Your task to perform on an android device: Check the settings for the YouTube app Image 0: 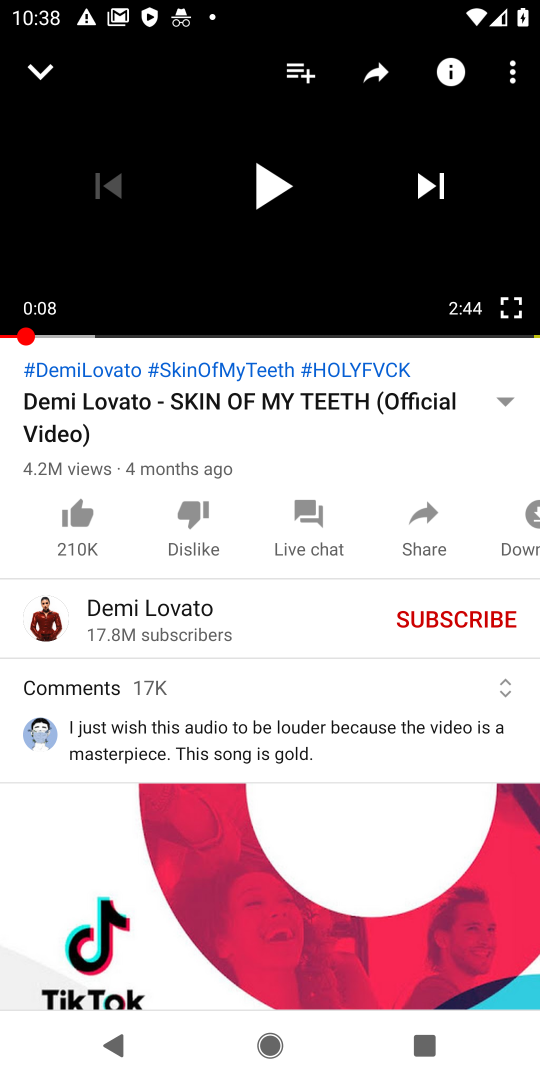
Step 0: press home button
Your task to perform on an android device: Check the settings for the YouTube app Image 1: 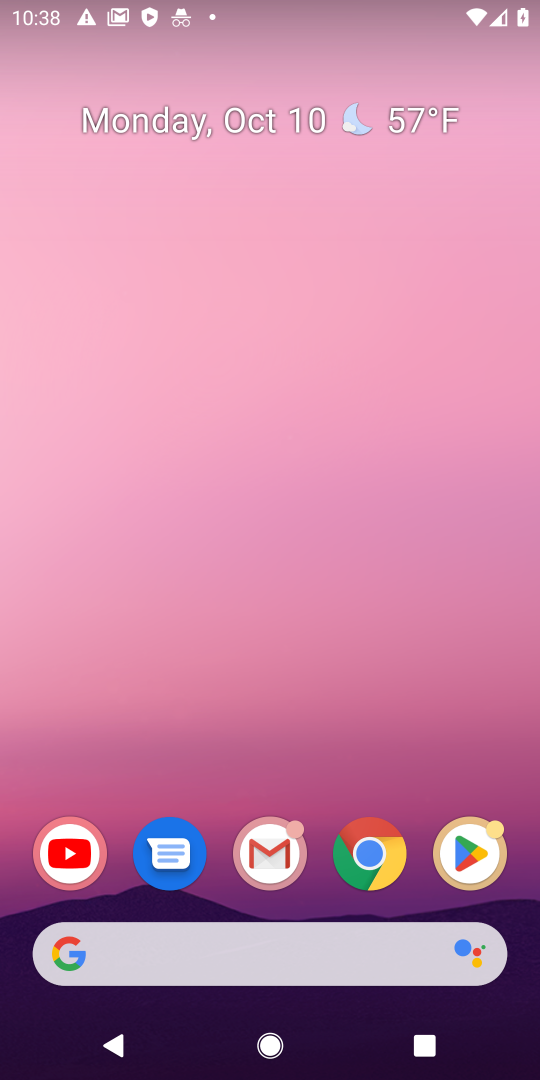
Step 1: drag from (392, 719) to (430, 98)
Your task to perform on an android device: Check the settings for the YouTube app Image 2: 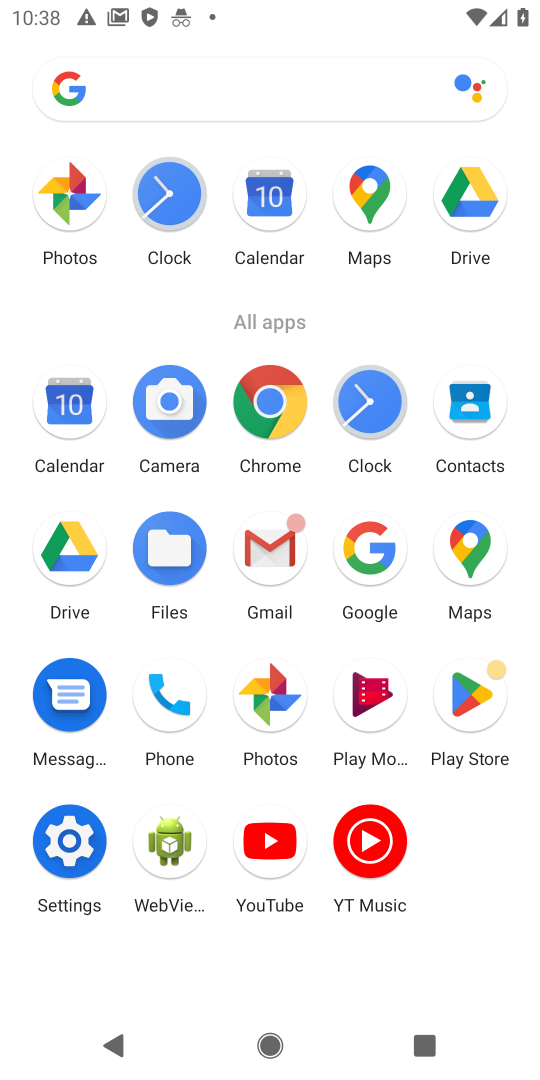
Step 2: click (277, 852)
Your task to perform on an android device: Check the settings for the YouTube app Image 3: 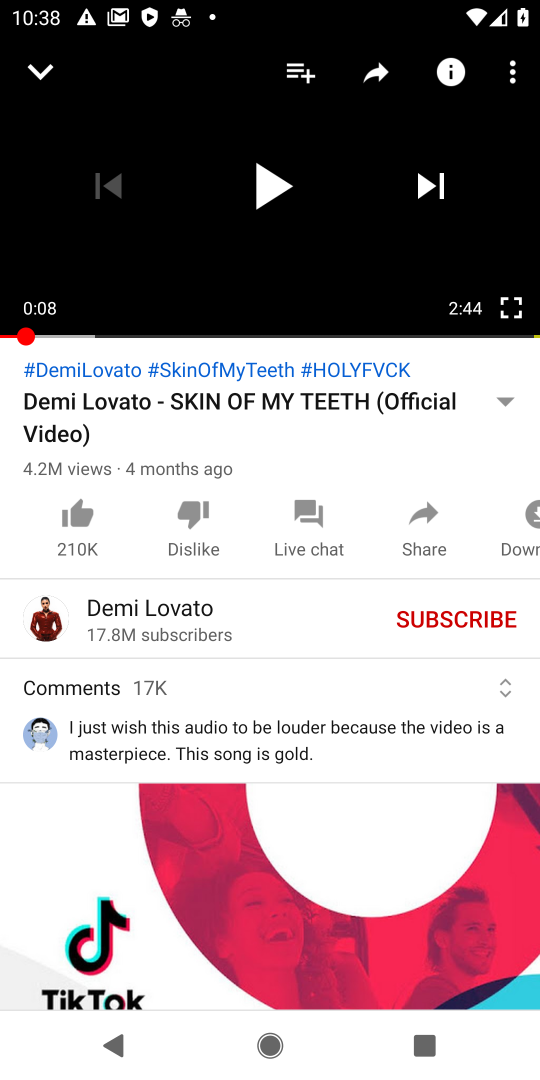
Step 3: press back button
Your task to perform on an android device: Check the settings for the YouTube app Image 4: 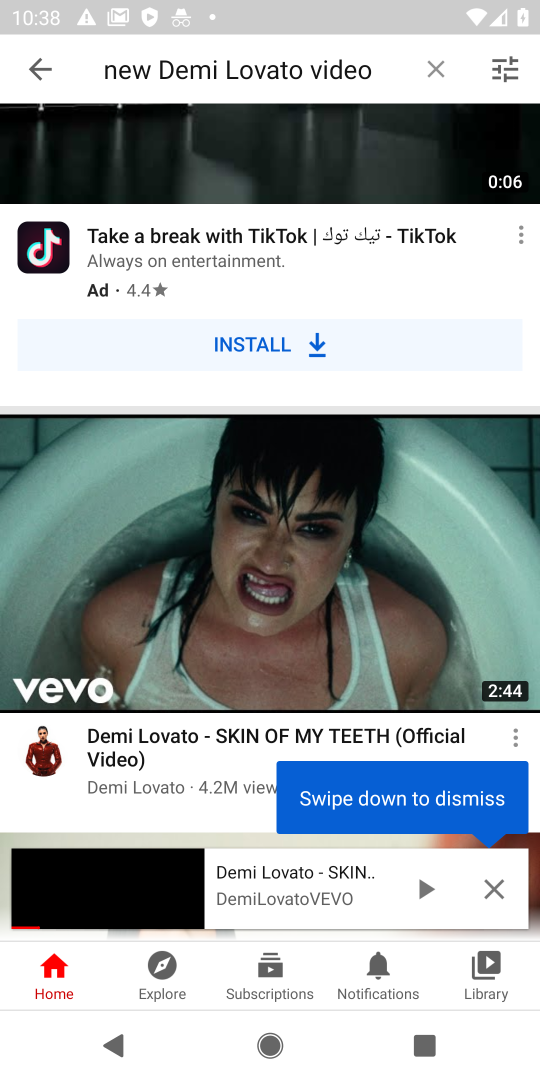
Step 4: press back button
Your task to perform on an android device: Check the settings for the YouTube app Image 5: 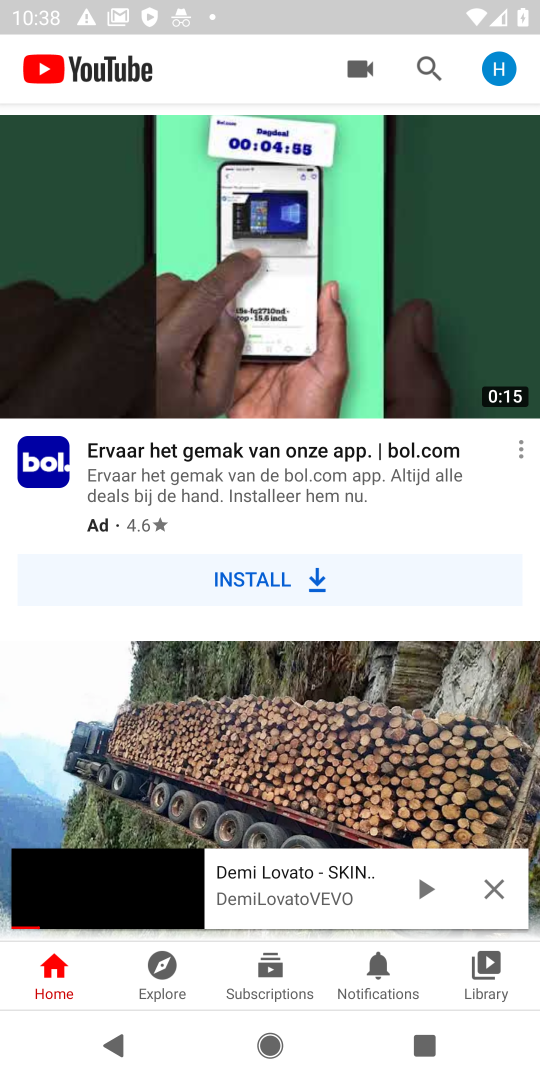
Step 5: click (504, 78)
Your task to perform on an android device: Check the settings for the YouTube app Image 6: 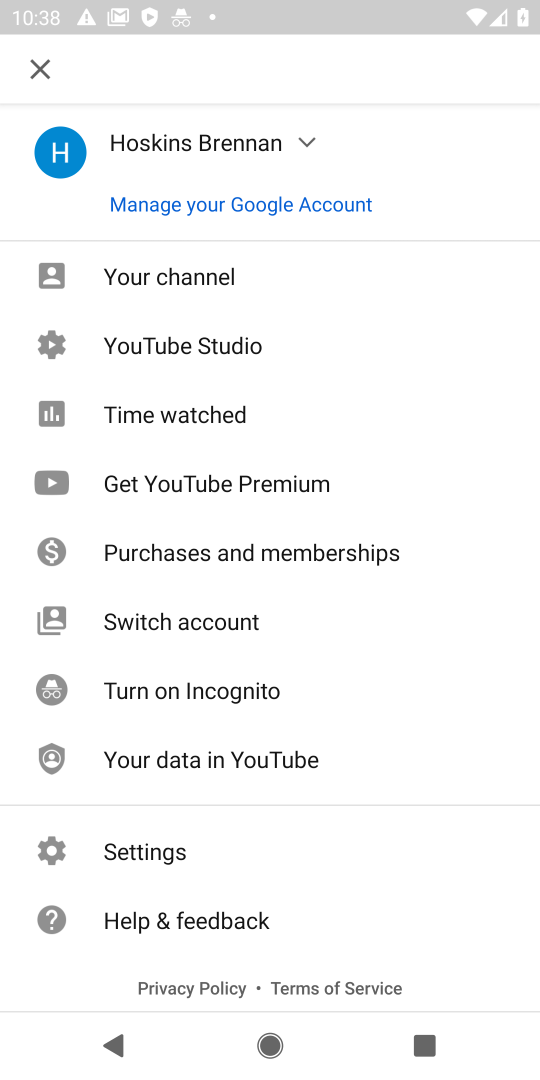
Step 6: click (146, 854)
Your task to perform on an android device: Check the settings for the YouTube app Image 7: 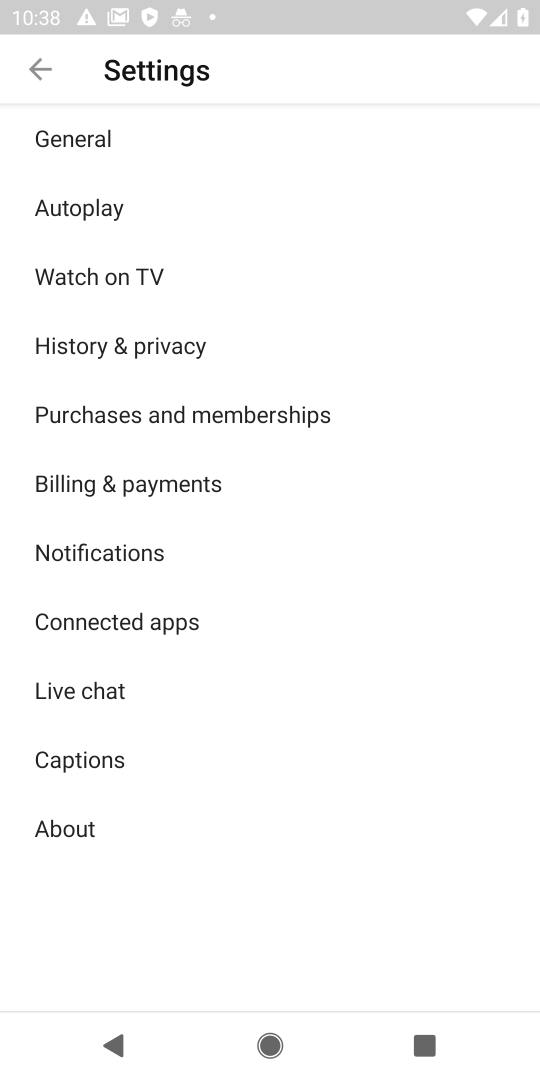
Step 7: task complete